Your task to perform on an android device: check google app version Image 0: 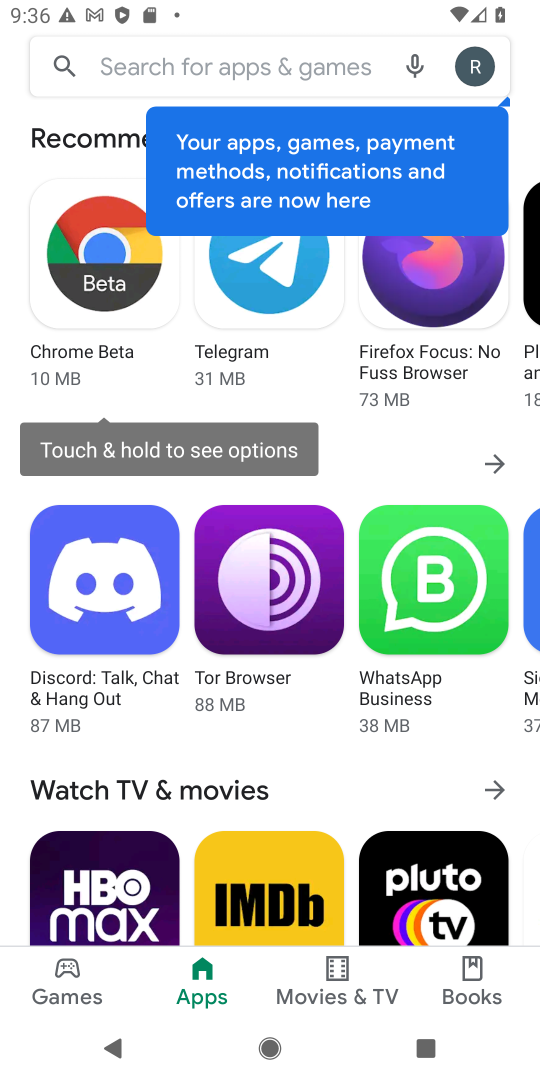
Step 0: press home button
Your task to perform on an android device: check google app version Image 1: 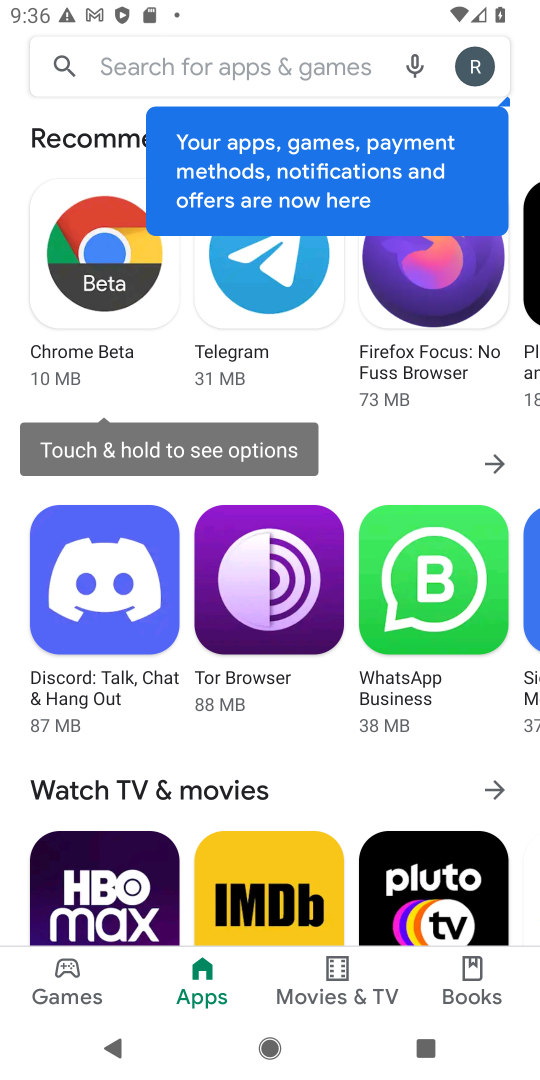
Step 1: press home button
Your task to perform on an android device: check google app version Image 2: 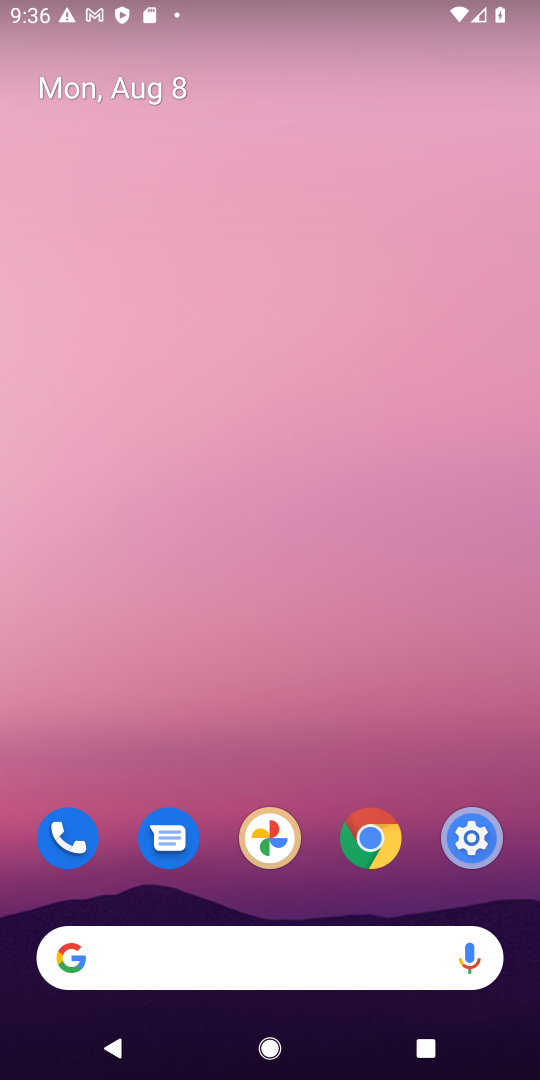
Step 2: drag from (399, 308) to (381, 64)
Your task to perform on an android device: check google app version Image 3: 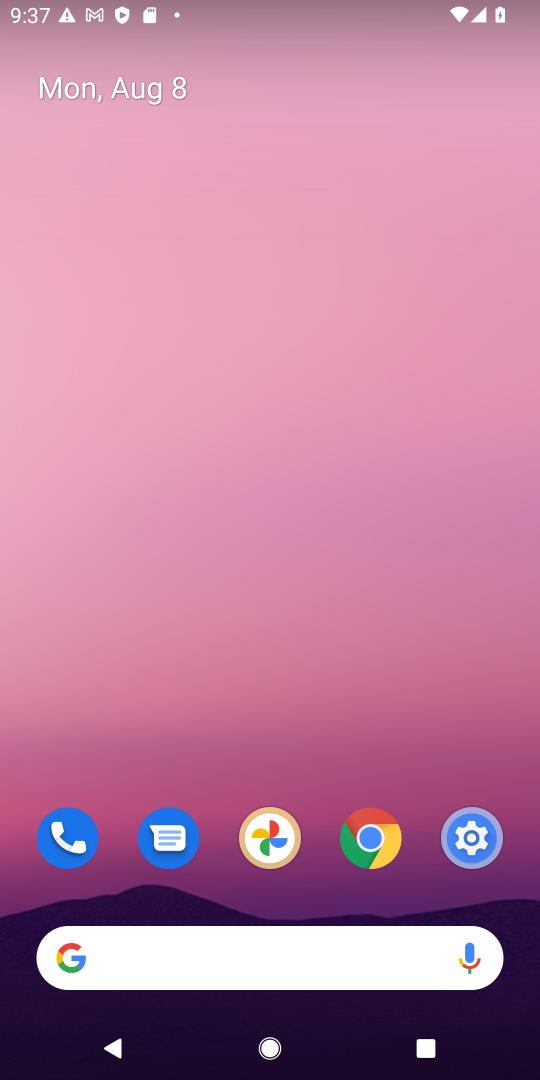
Step 3: drag from (314, 546) to (340, 128)
Your task to perform on an android device: check google app version Image 4: 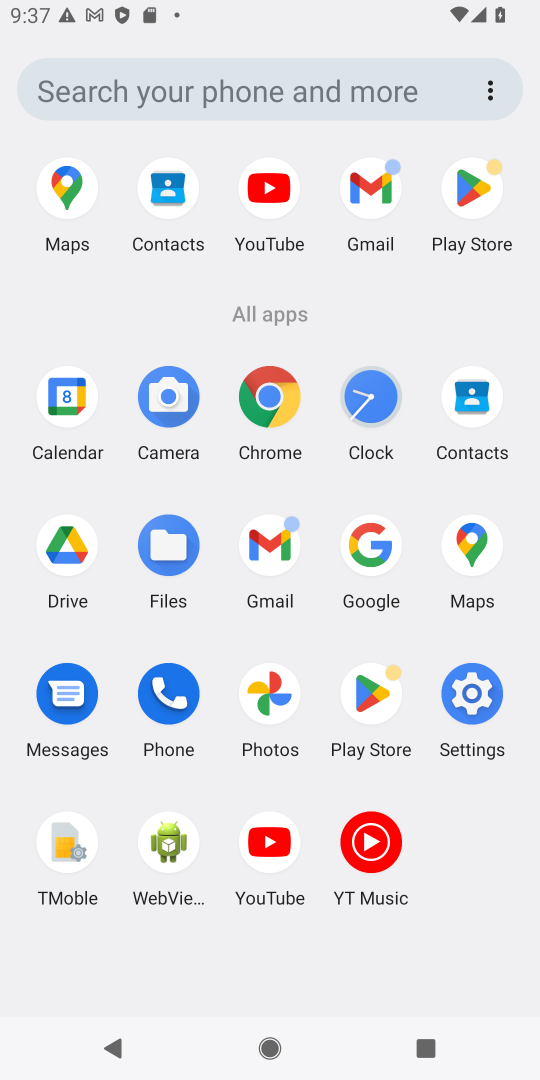
Step 4: click (373, 549)
Your task to perform on an android device: check google app version Image 5: 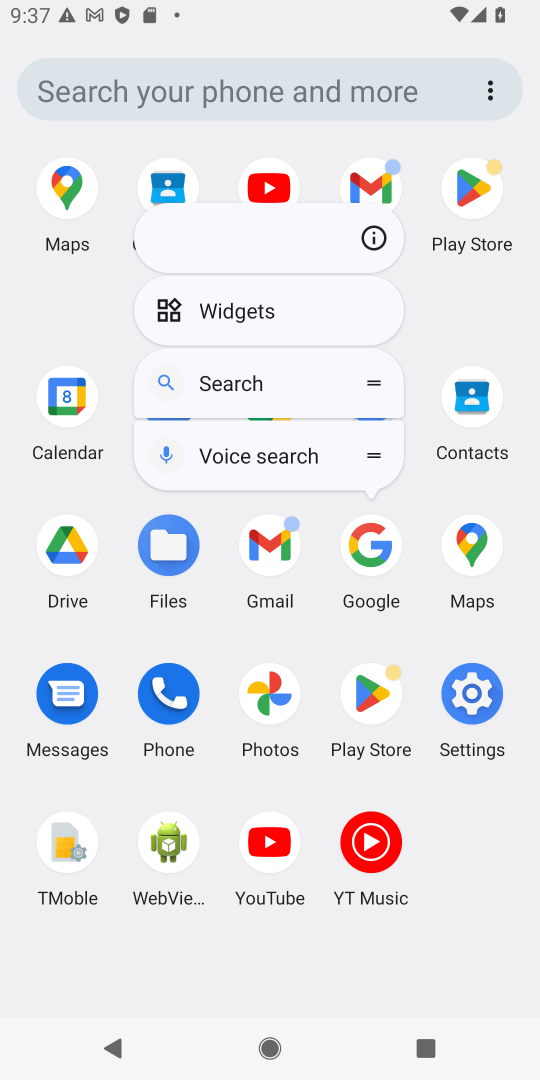
Step 5: click (373, 230)
Your task to perform on an android device: check google app version Image 6: 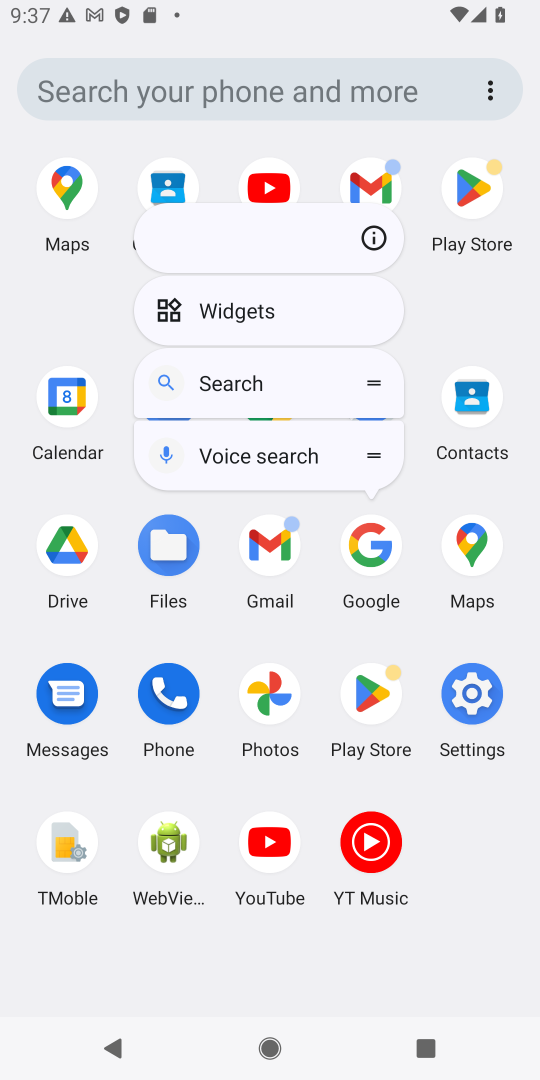
Step 6: click (373, 230)
Your task to perform on an android device: check google app version Image 7: 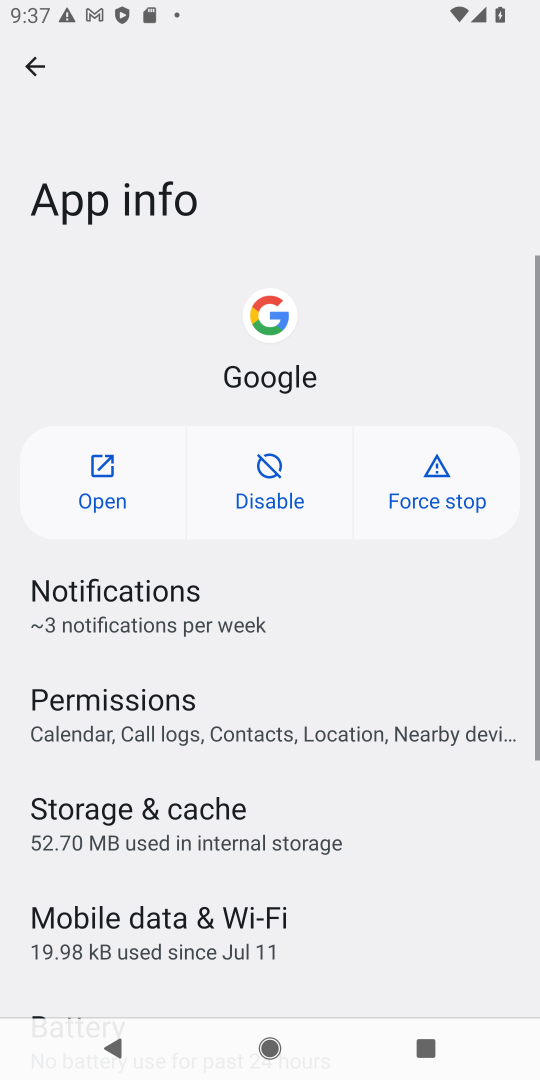
Step 7: task complete